Your task to perform on an android device: Go to Maps Image 0: 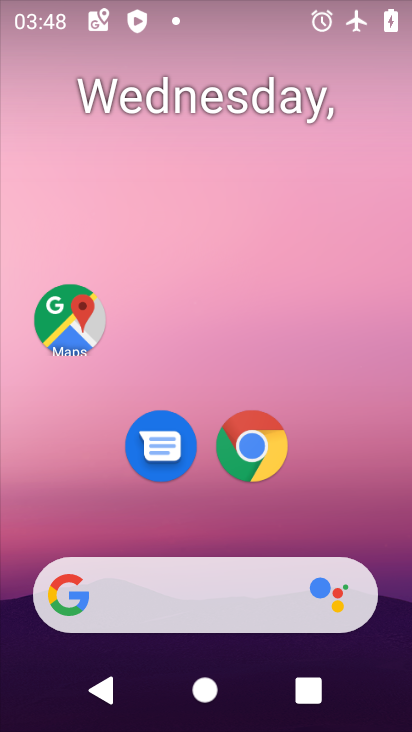
Step 0: click (44, 334)
Your task to perform on an android device: Go to Maps Image 1: 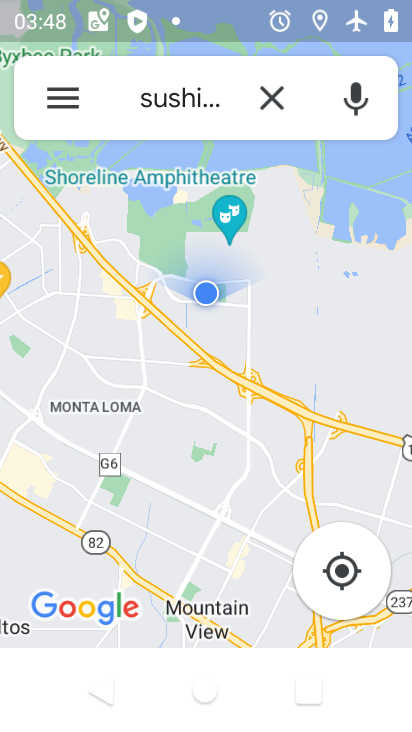
Step 1: task complete